Your task to perform on an android device: Go to sound settings Image 0: 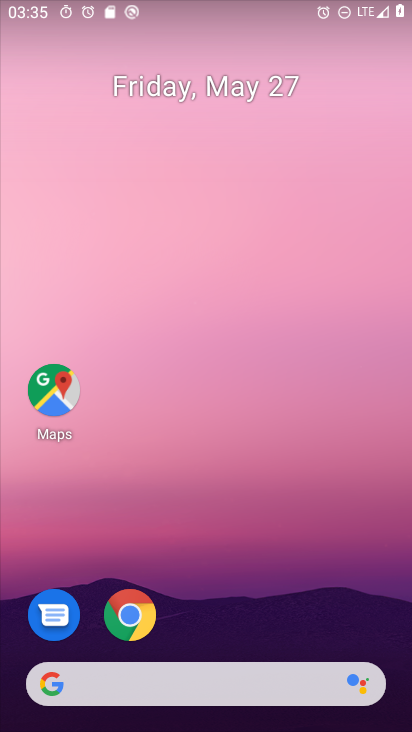
Step 0: drag from (369, 633) to (375, 296)
Your task to perform on an android device: Go to sound settings Image 1: 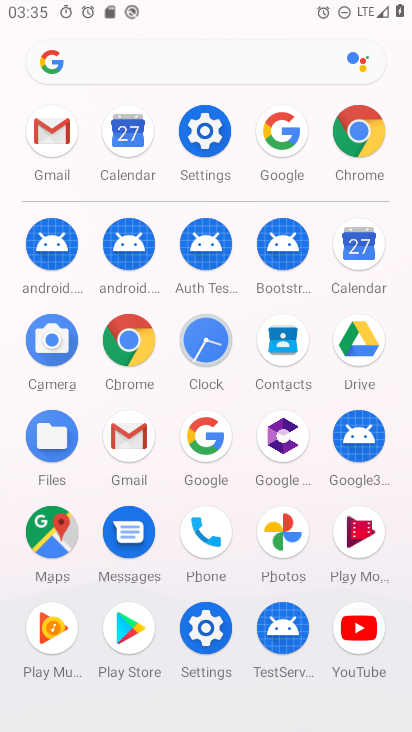
Step 1: click (211, 158)
Your task to perform on an android device: Go to sound settings Image 2: 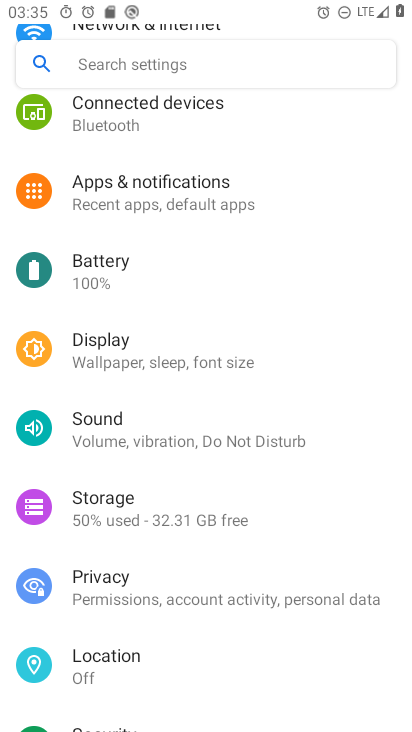
Step 2: drag from (346, 220) to (350, 289)
Your task to perform on an android device: Go to sound settings Image 3: 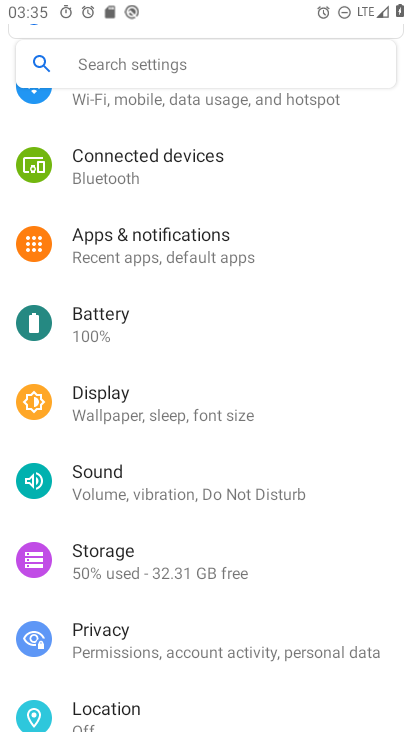
Step 3: drag from (345, 193) to (337, 283)
Your task to perform on an android device: Go to sound settings Image 4: 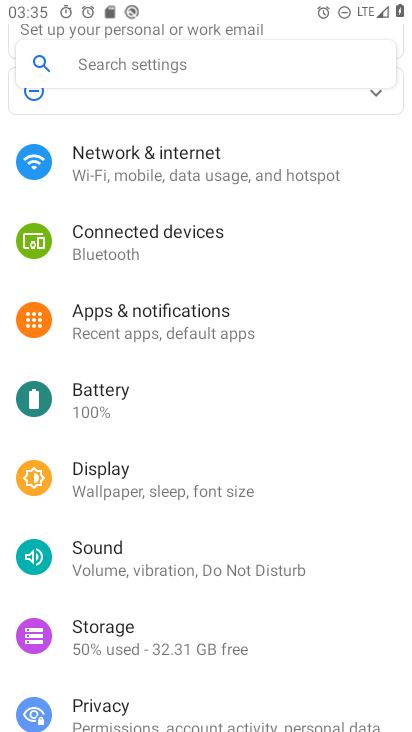
Step 4: drag from (346, 232) to (344, 371)
Your task to perform on an android device: Go to sound settings Image 5: 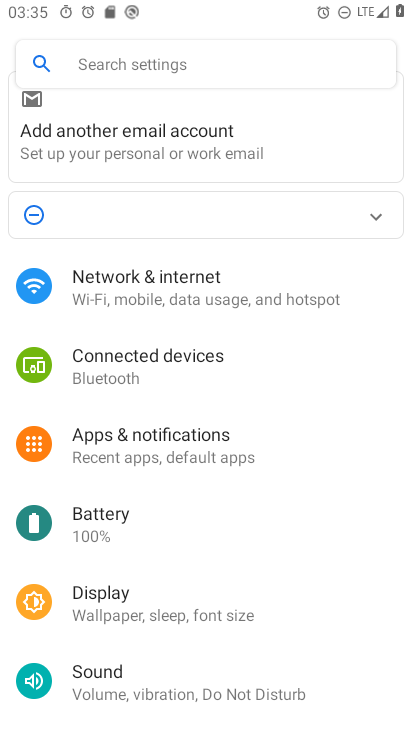
Step 5: drag from (341, 389) to (345, 348)
Your task to perform on an android device: Go to sound settings Image 6: 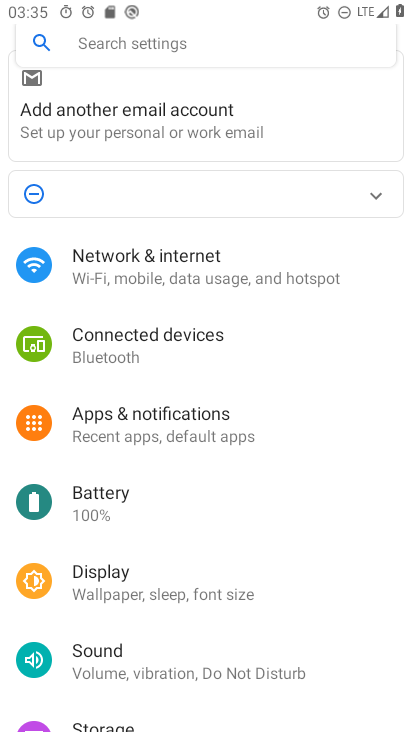
Step 6: drag from (357, 435) to (348, 315)
Your task to perform on an android device: Go to sound settings Image 7: 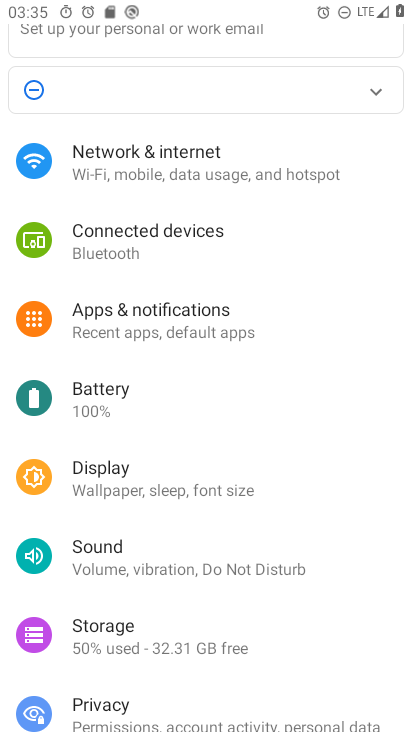
Step 7: drag from (293, 448) to (318, 323)
Your task to perform on an android device: Go to sound settings Image 8: 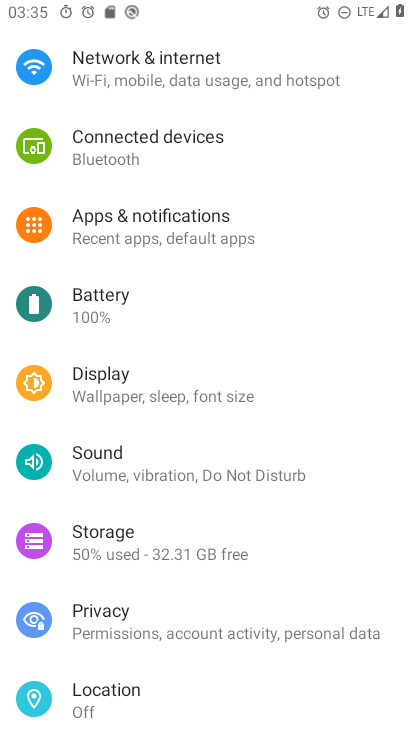
Step 8: drag from (340, 460) to (350, 386)
Your task to perform on an android device: Go to sound settings Image 9: 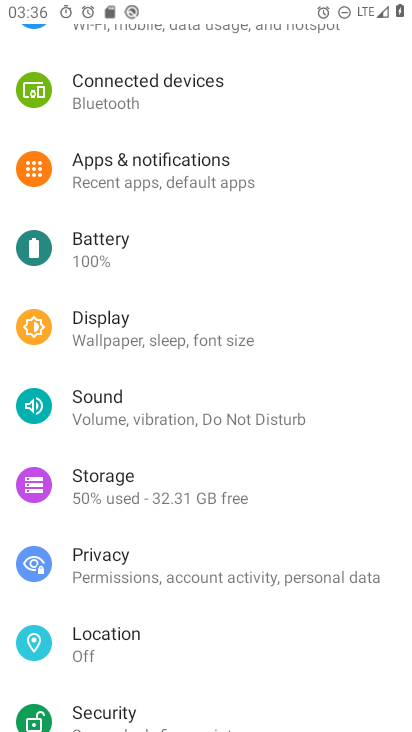
Step 9: click (138, 401)
Your task to perform on an android device: Go to sound settings Image 10: 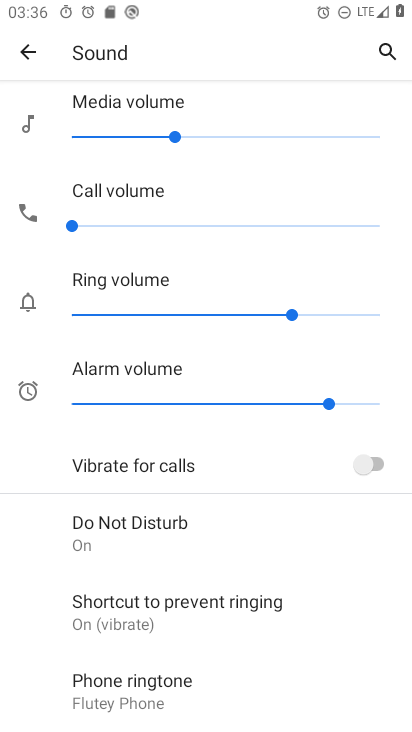
Step 10: task complete